Your task to perform on an android device: Go to Google maps Image 0: 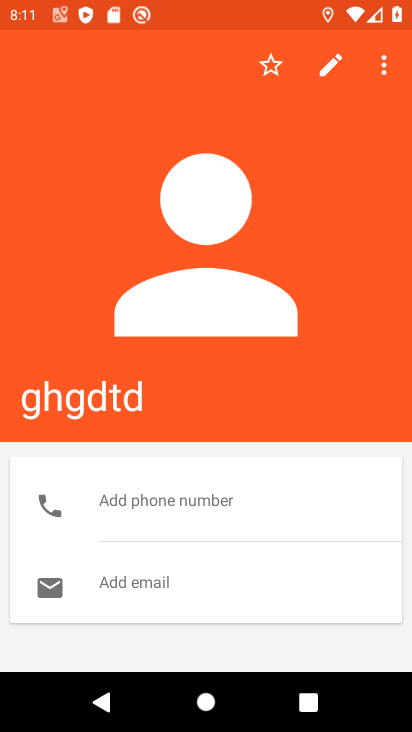
Step 0: click (63, 401)
Your task to perform on an android device: Go to Google maps Image 1: 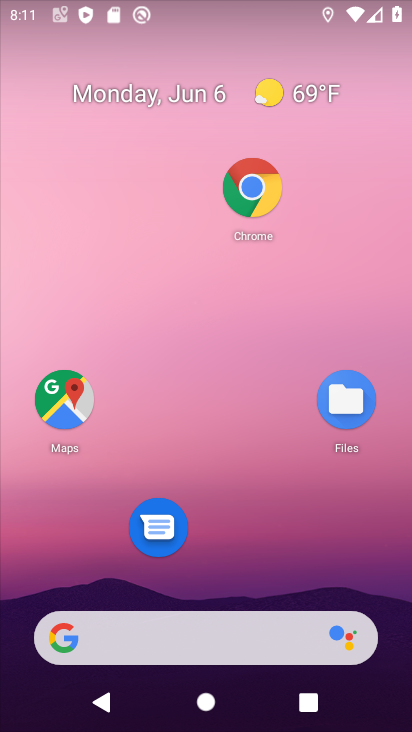
Step 1: click (65, 401)
Your task to perform on an android device: Go to Google maps Image 2: 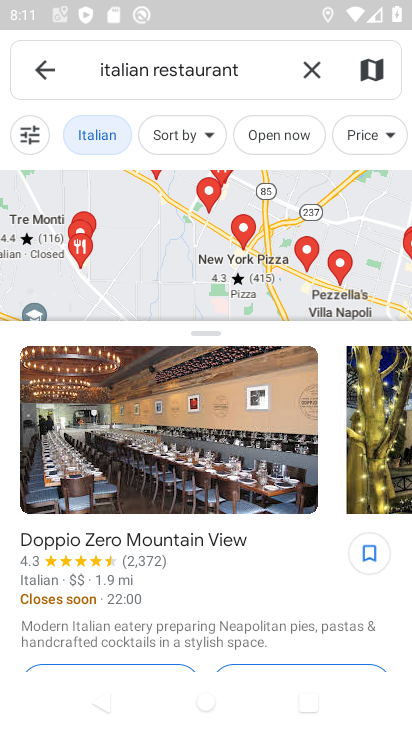
Step 2: task complete